Your task to perform on an android device: star an email in the gmail app Image 0: 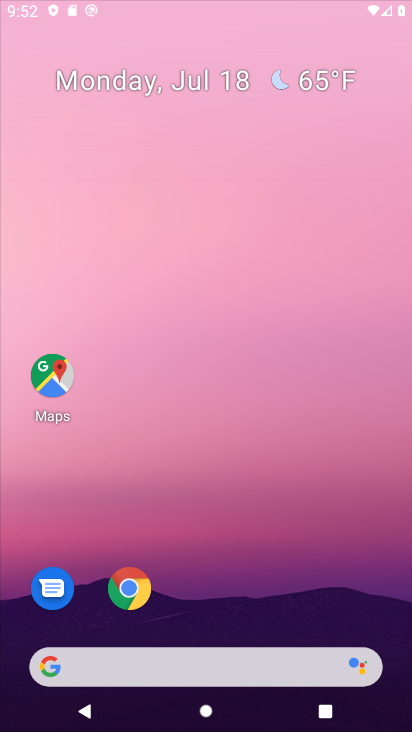
Step 0: press home button
Your task to perform on an android device: star an email in the gmail app Image 1: 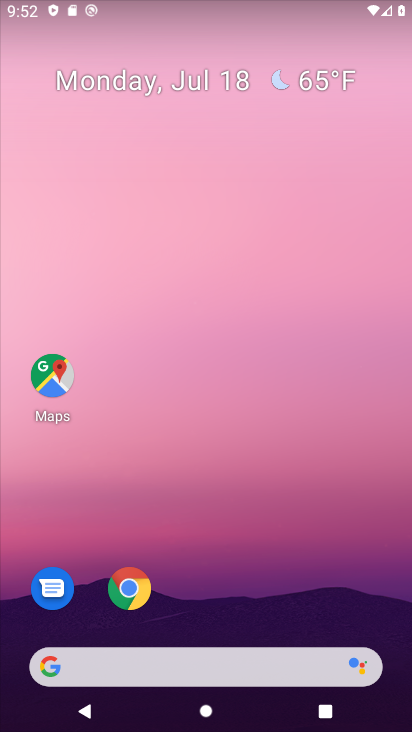
Step 1: drag from (222, 641) to (226, 125)
Your task to perform on an android device: star an email in the gmail app Image 2: 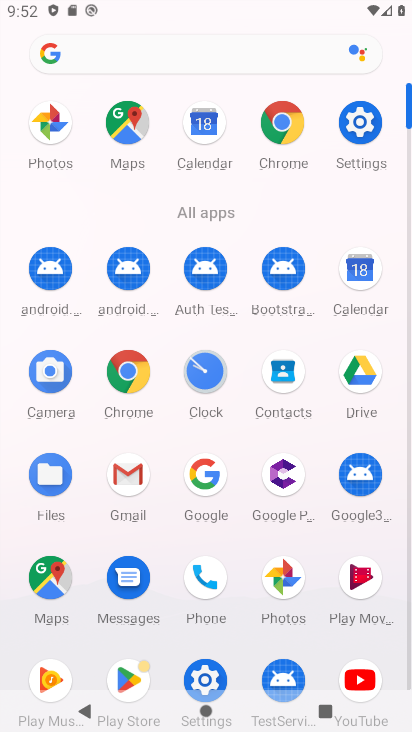
Step 2: click (115, 476)
Your task to perform on an android device: star an email in the gmail app Image 3: 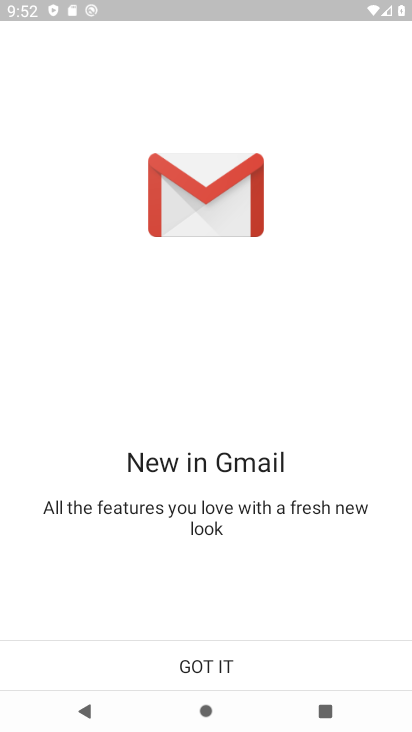
Step 3: click (193, 668)
Your task to perform on an android device: star an email in the gmail app Image 4: 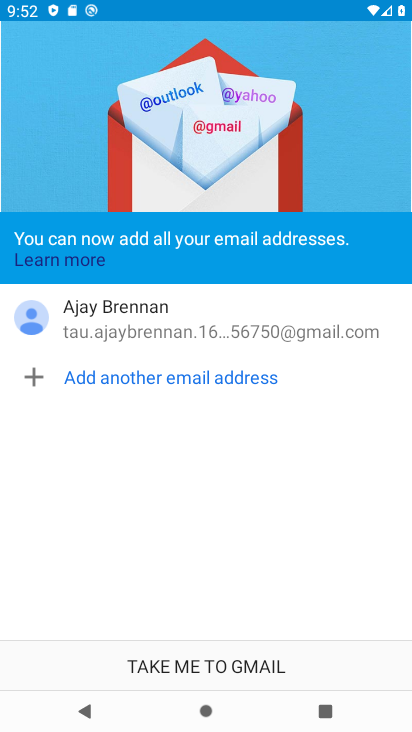
Step 4: click (193, 668)
Your task to perform on an android device: star an email in the gmail app Image 5: 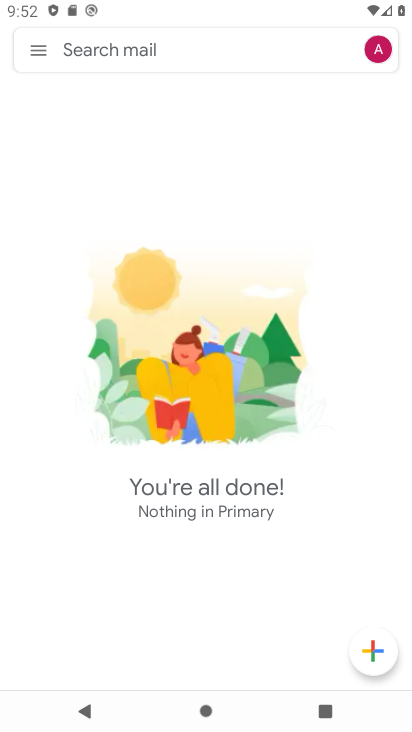
Step 5: click (39, 46)
Your task to perform on an android device: star an email in the gmail app Image 6: 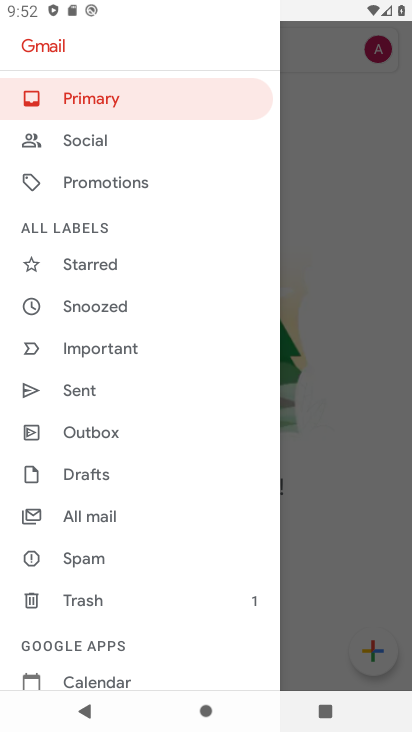
Step 6: click (105, 519)
Your task to perform on an android device: star an email in the gmail app Image 7: 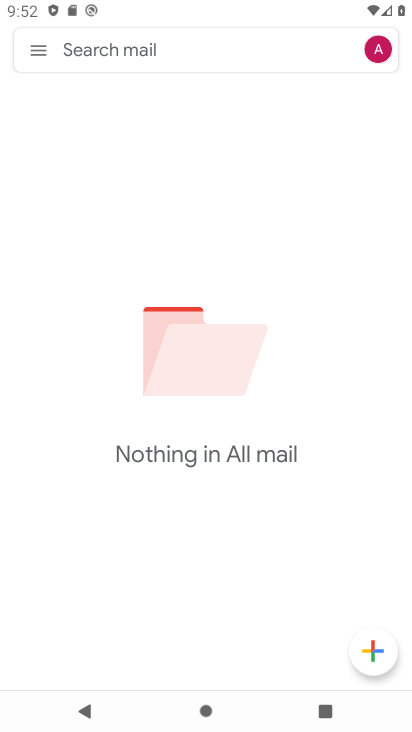
Step 7: task complete